Your task to perform on an android device: Show me recent news Image 0: 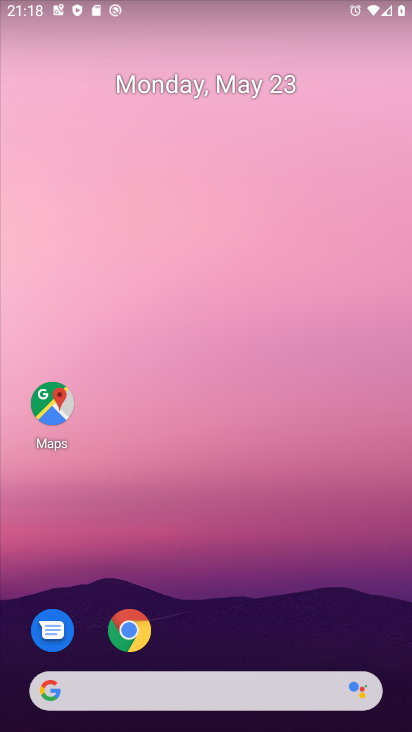
Step 0: drag from (185, 610) to (209, 392)
Your task to perform on an android device: Show me recent news Image 1: 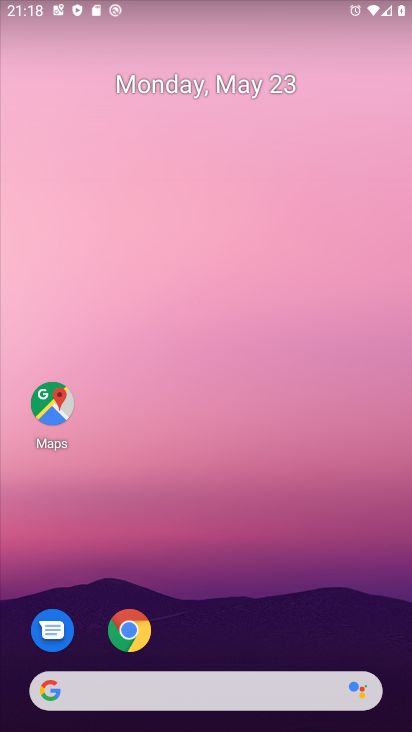
Step 1: drag from (231, 645) to (239, 319)
Your task to perform on an android device: Show me recent news Image 2: 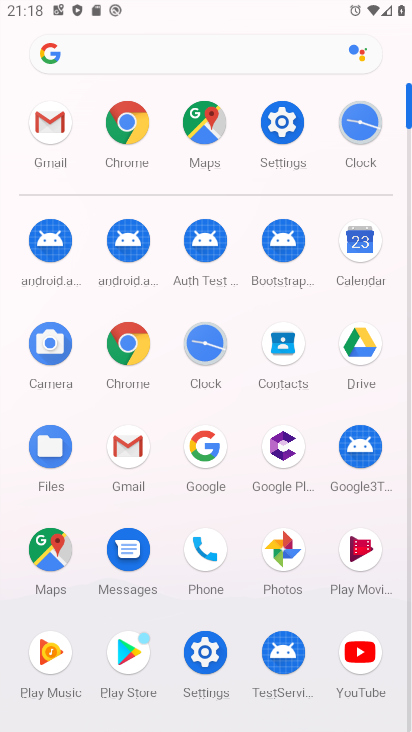
Step 2: click (210, 450)
Your task to perform on an android device: Show me recent news Image 3: 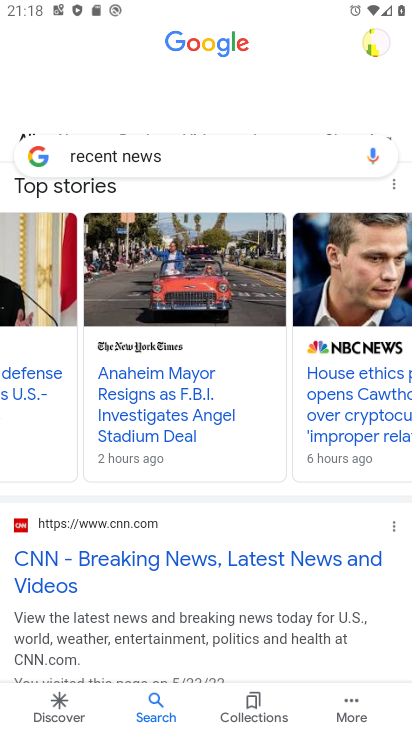
Step 3: task complete